Your task to perform on an android device: delete a single message in the gmail app Image 0: 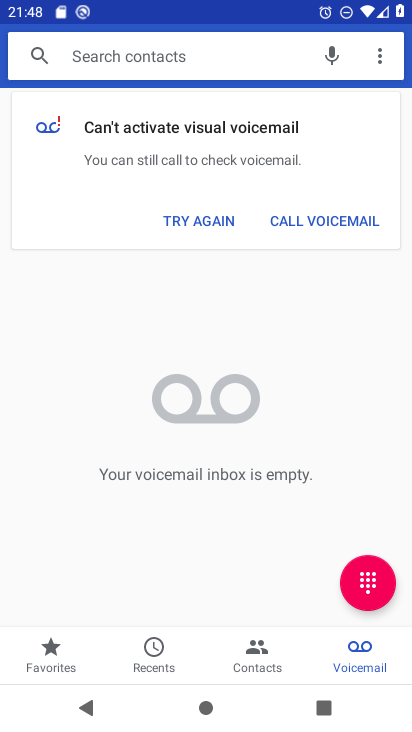
Step 0: press home button
Your task to perform on an android device: delete a single message in the gmail app Image 1: 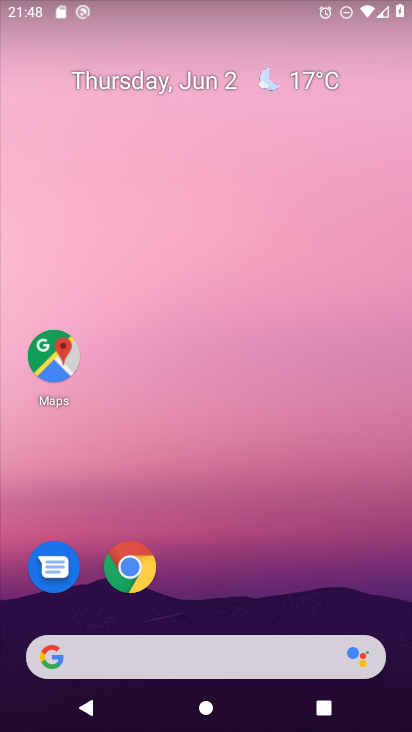
Step 1: drag from (176, 592) to (251, 66)
Your task to perform on an android device: delete a single message in the gmail app Image 2: 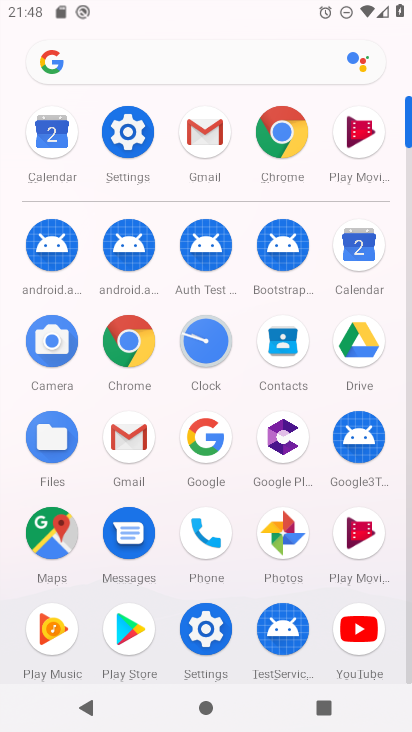
Step 2: click (139, 436)
Your task to perform on an android device: delete a single message in the gmail app Image 3: 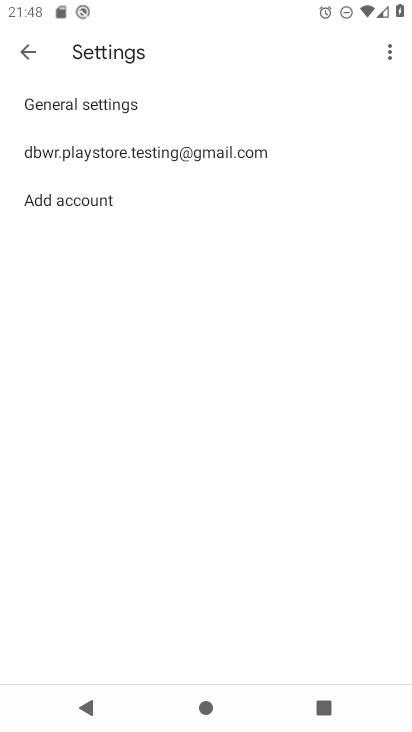
Step 3: click (27, 53)
Your task to perform on an android device: delete a single message in the gmail app Image 4: 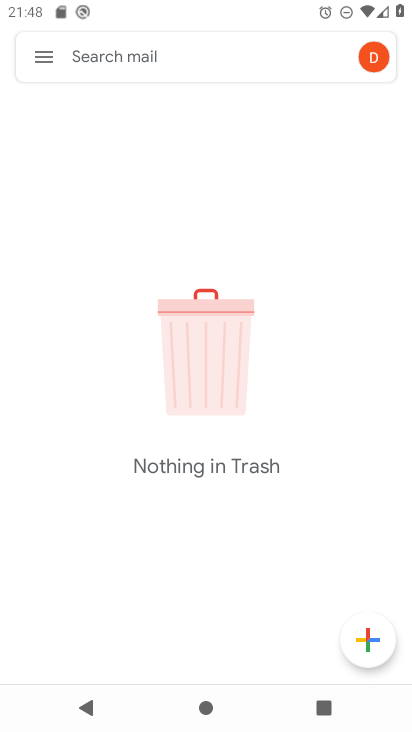
Step 4: click (40, 54)
Your task to perform on an android device: delete a single message in the gmail app Image 5: 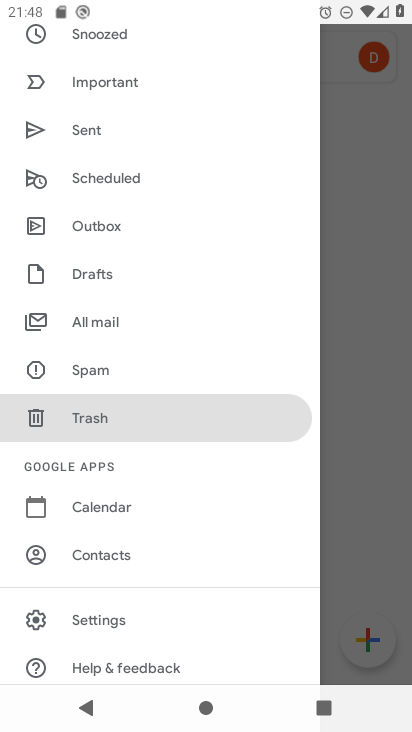
Step 5: click (125, 321)
Your task to perform on an android device: delete a single message in the gmail app Image 6: 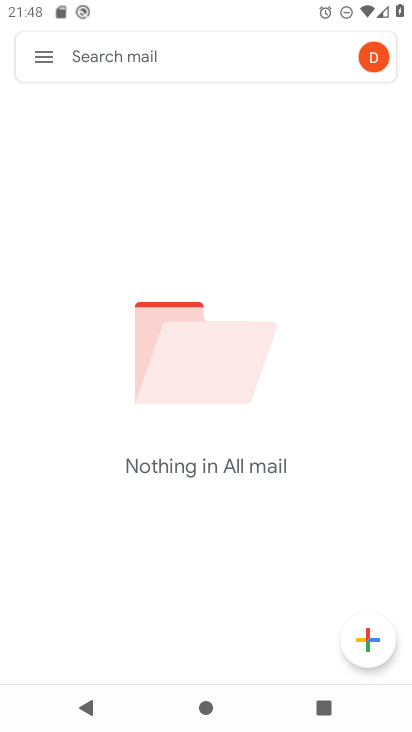
Step 6: task complete